Your task to perform on an android device: Open Chrome and go to settings Image 0: 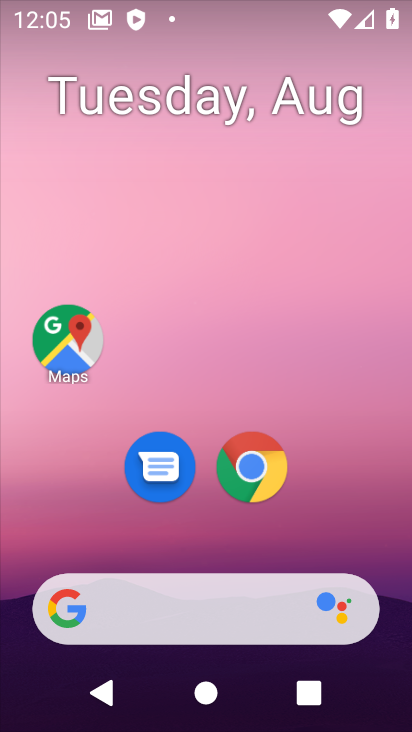
Step 0: press home button
Your task to perform on an android device: Open Chrome and go to settings Image 1: 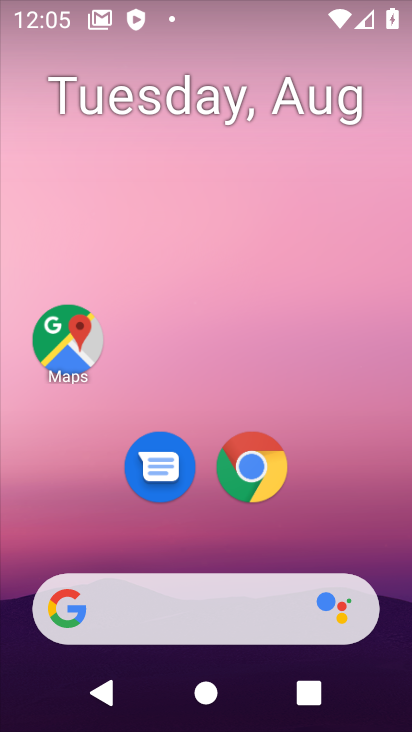
Step 1: drag from (368, 543) to (349, 54)
Your task to perform on an android device: Open Chrome and go to settings Image 2: 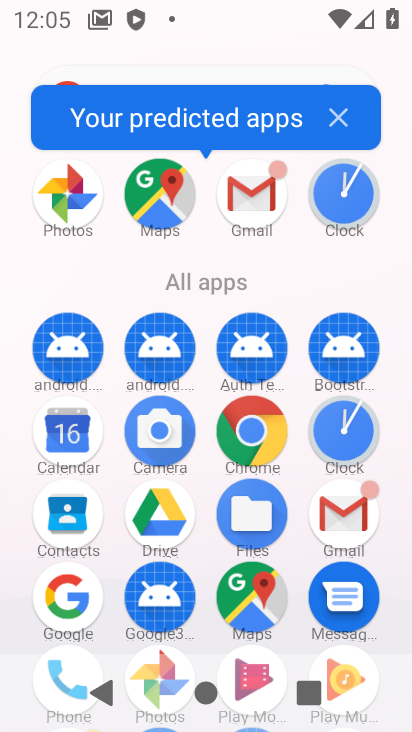
Step 2: click (257, 440)
Your task to perform on an android device: Open Chrome and go to settings Image 3: 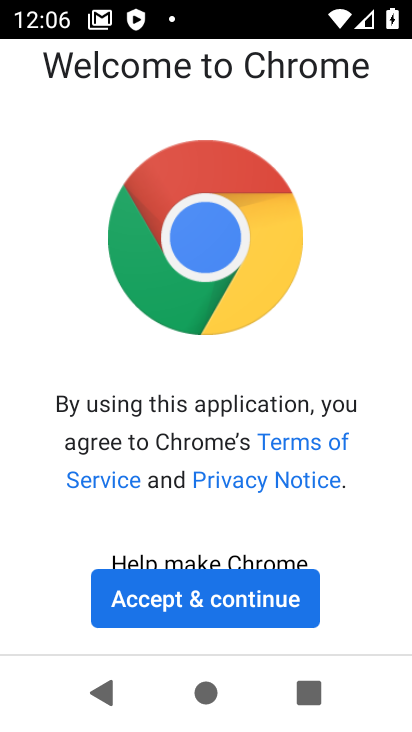
Step 3: click (201, 608)
Your task to perform on an android device: Open Chrome and go to settings Image 4: 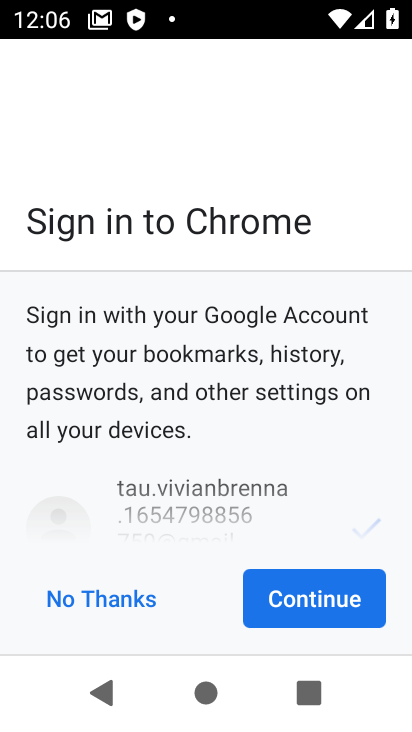
Step 4: click (312, 604)
Your task to perform on an android device: Open Chrome and go to settings Image 5: 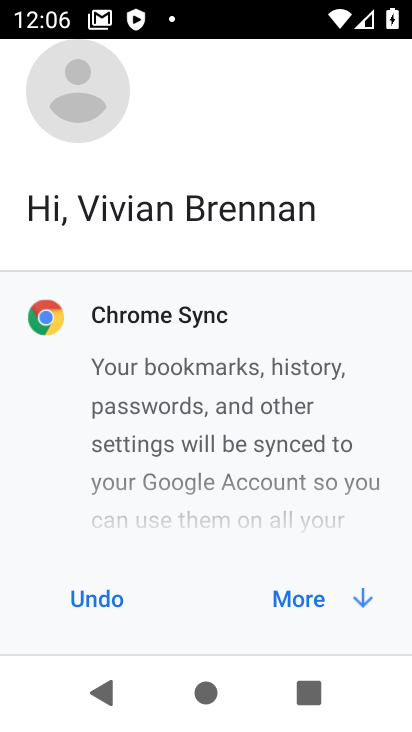
Step 5: click (312, 604)
Your task to perform on an android device: Open Chrome and go to settings Image 6: 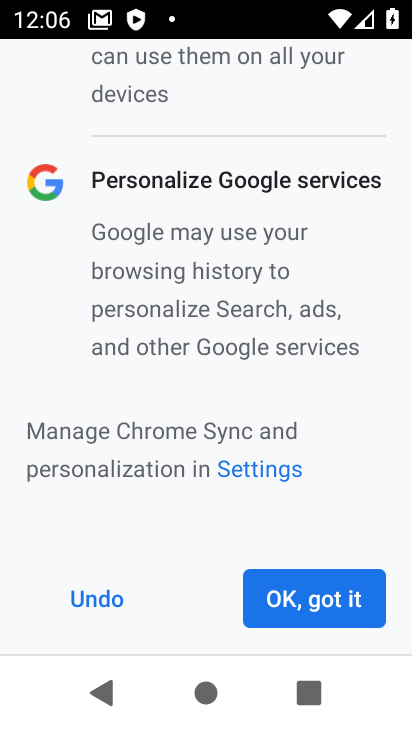
Step 6: click (312, 604)
Your task to perform on an android device: Open Chrome and go to settings Image 7: 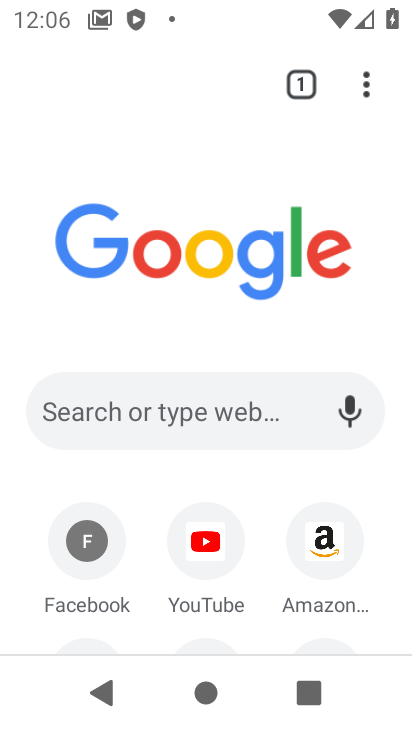
Step 7: click (365, 93)
Your task to perform on an android device: Open Chrome and go to settings Image 8: 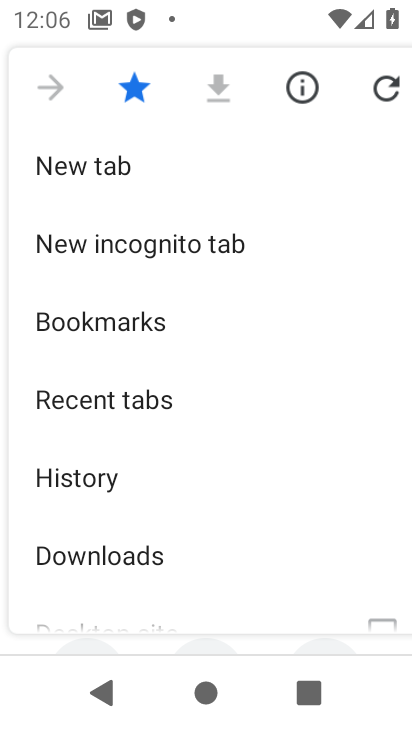
Step 8: drag from (326, 475) to (334, 366)
Your task to perform on an android device: Open Chrome and go to settings Image 9: 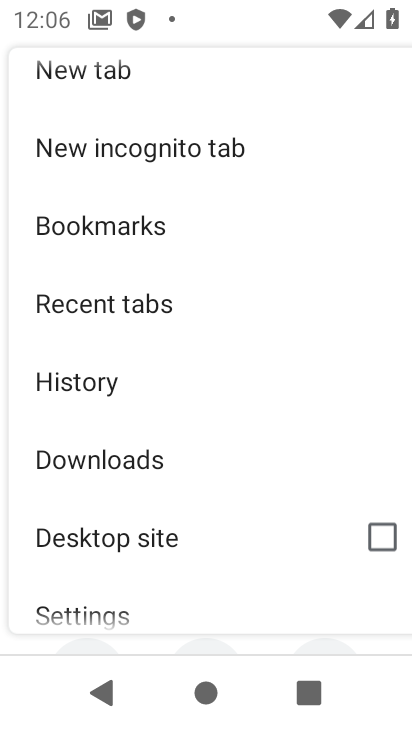
Step 9: drag from (279, 517) to (289, 408)
Your task to perform on an android device: Open Chrome and go to settings Image 10: 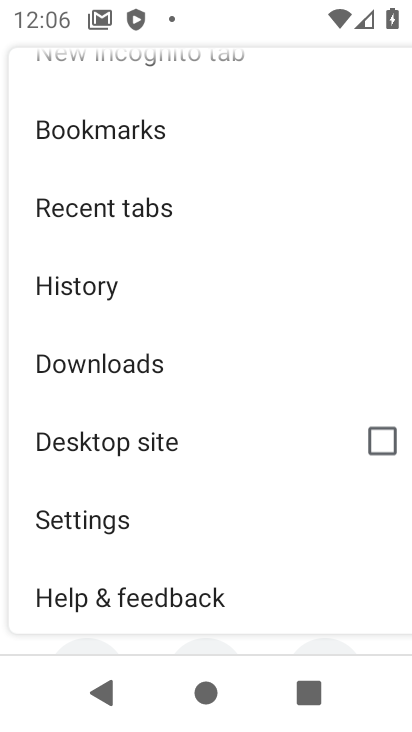
Step 10: drag from (241, 549) to (239, 351)
Your task to perform on an android device: Open Chrome and go to settings Image 11: 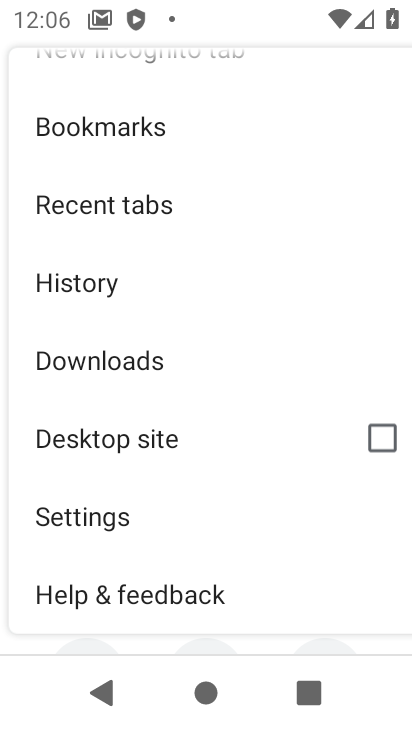
Step 11: click (184, 531)
Your task to perform on an android device: Open Chrome and go to settings Image 12: 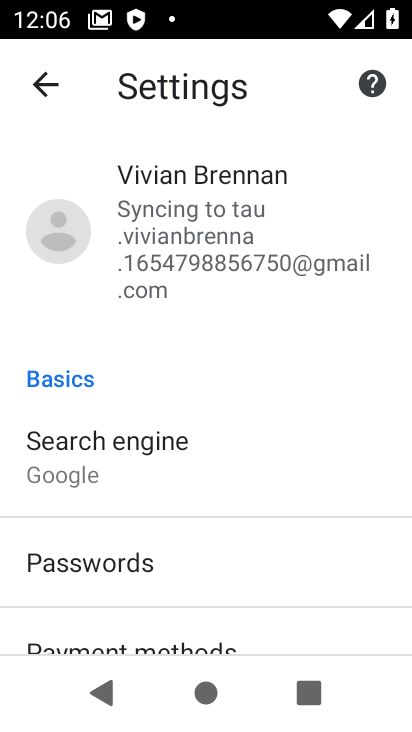
Step 12: task complete